Your task to perform on an android device: Clear the shopping cart on newegg. Image 0: 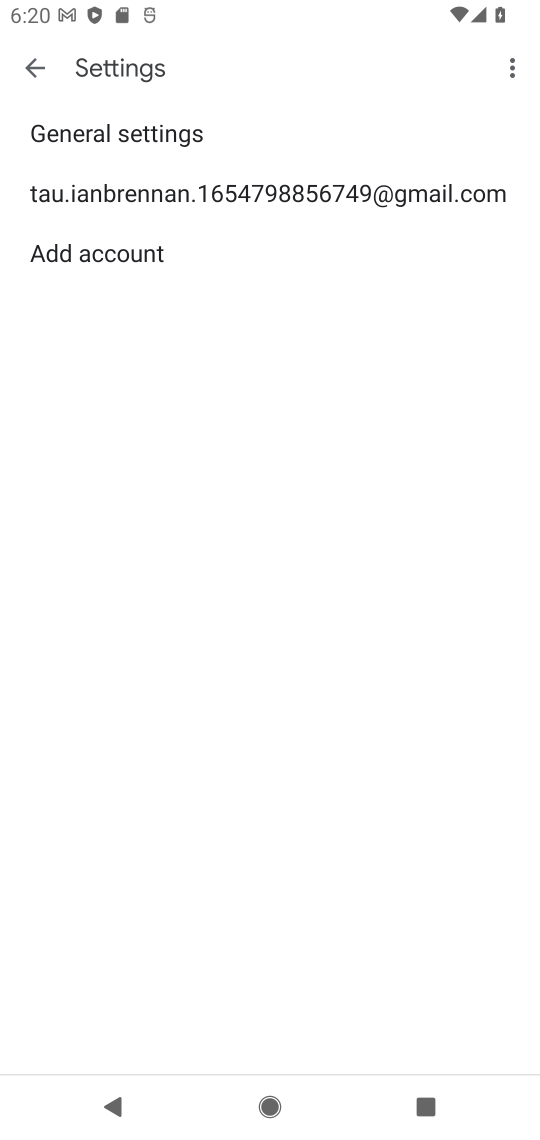
Step 0: press home button
Your task to perform on an android device: Clear the shopping cart on newegg. Image 1: 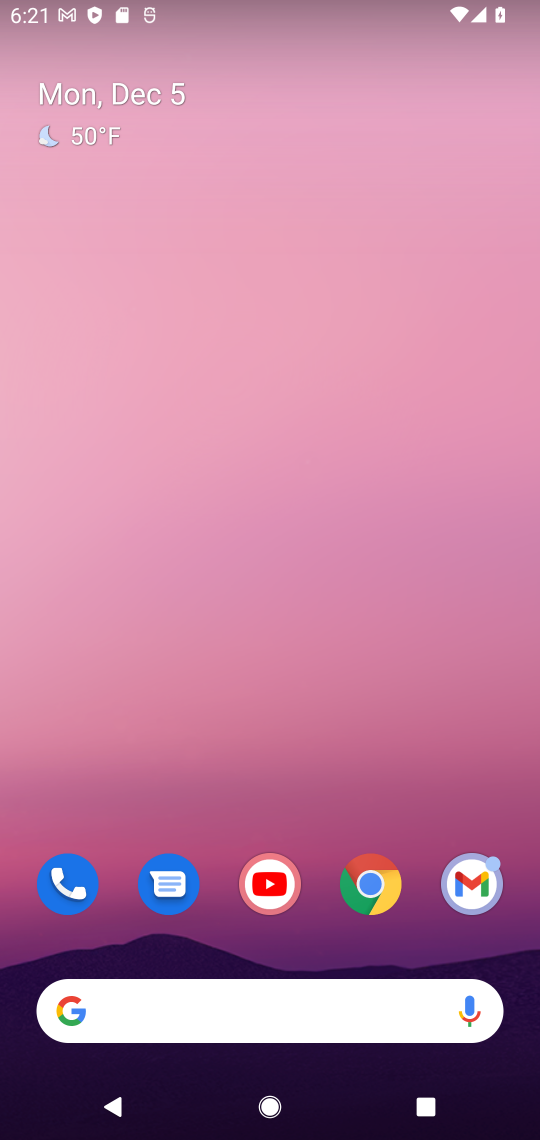
Step 1: click (380, 887)
Your task to perform on an android device: Clear the shopping cart on newegg. Image 2: 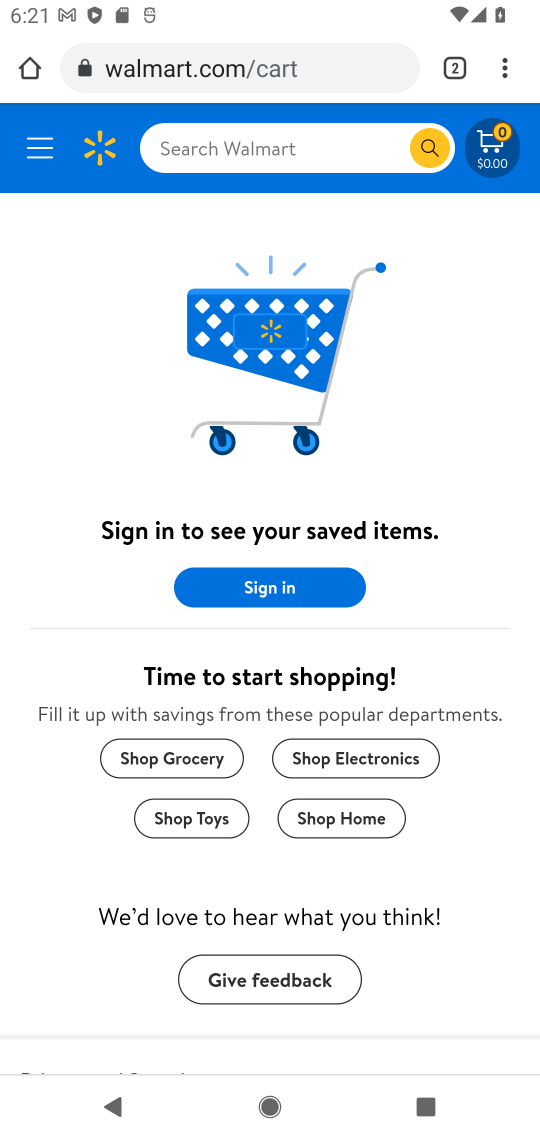
Step 2: click (449, 64)
Your task to perform on an android device: Clear the shopping cart on newegg. Image 3: 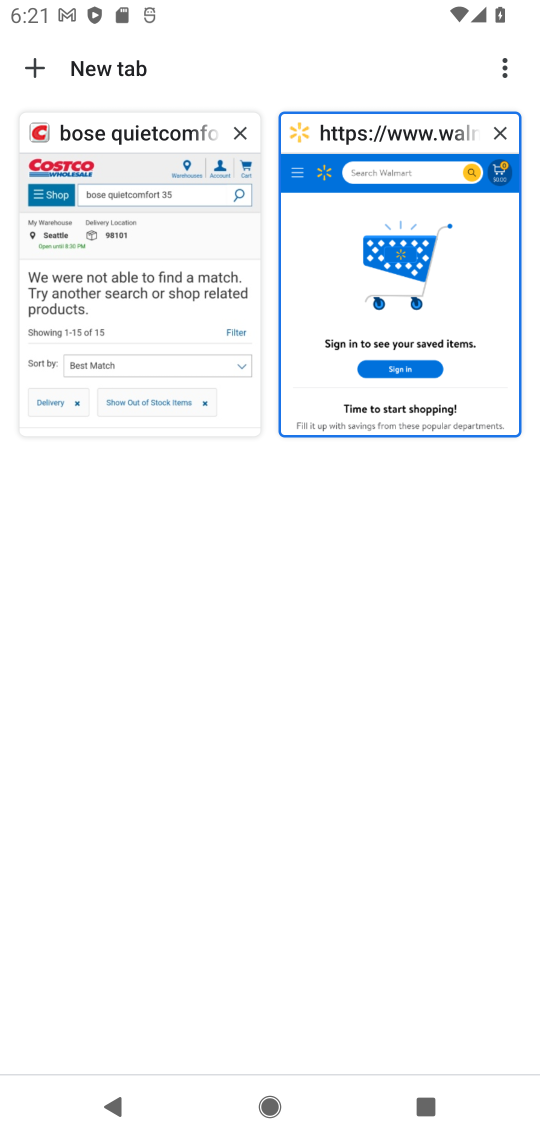
Step 3: click (36, 77)
Your task to perform on an android device: Clear the shopping cart on newegg. Image 4: 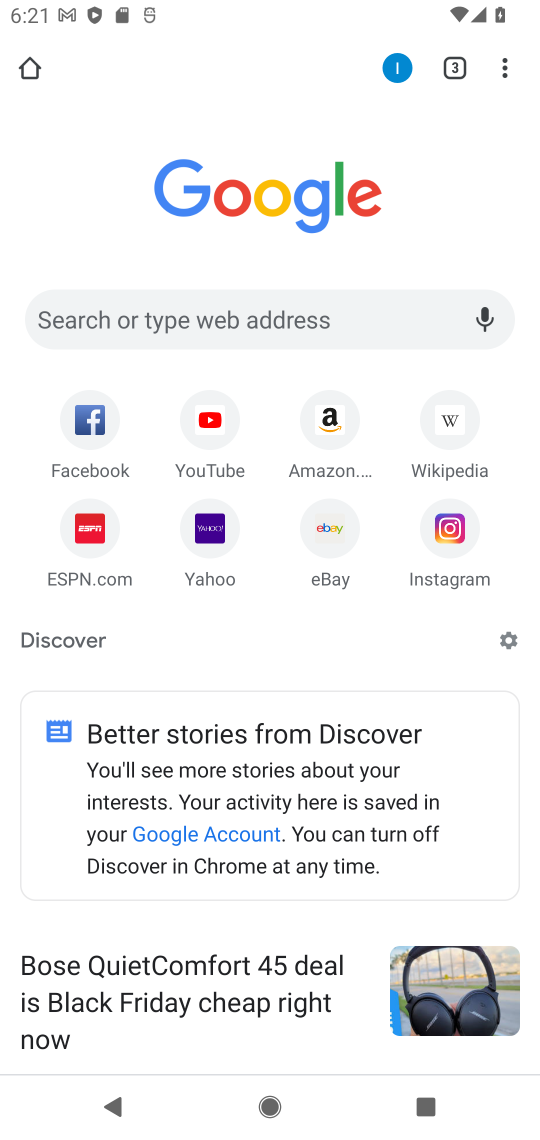
Step 4: click (164, 305)
Your task to perform on an android device: Clear the shopping cart on newegg. Image 5: 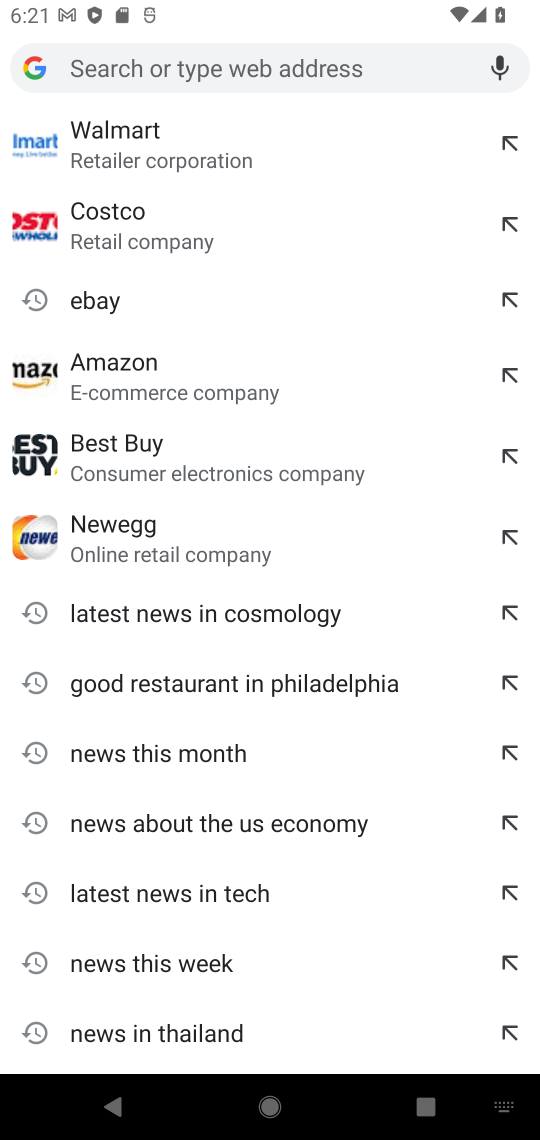
Step 5: type "newegg"
Your task to perform on an android device: Clear the shopping cart on newegg. Image 6: 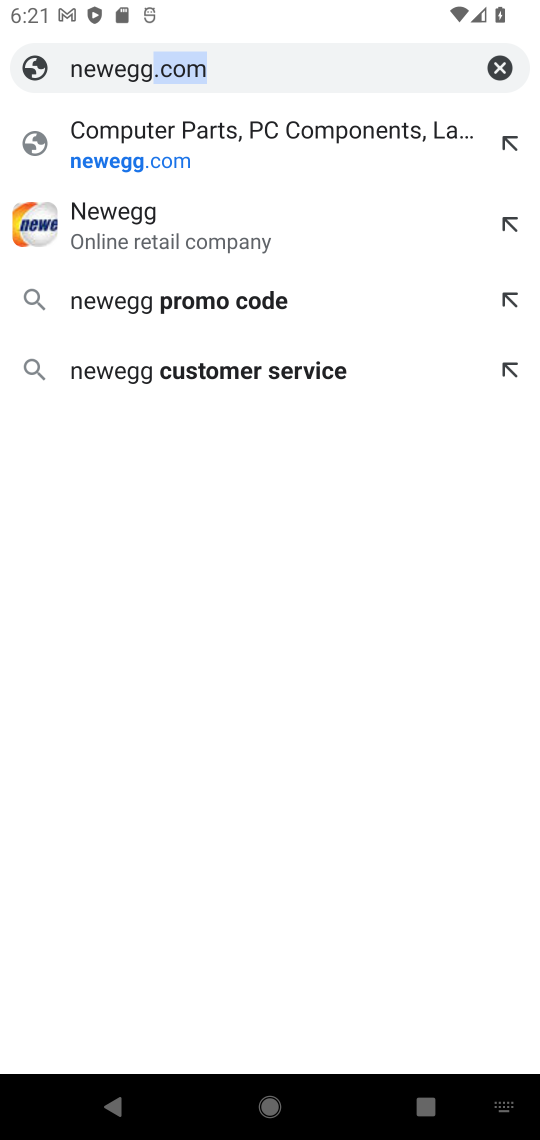
Step 6: click (151, 222)
Your task to perform on an android device: Clear the shopping cart on newegg. Image 7: 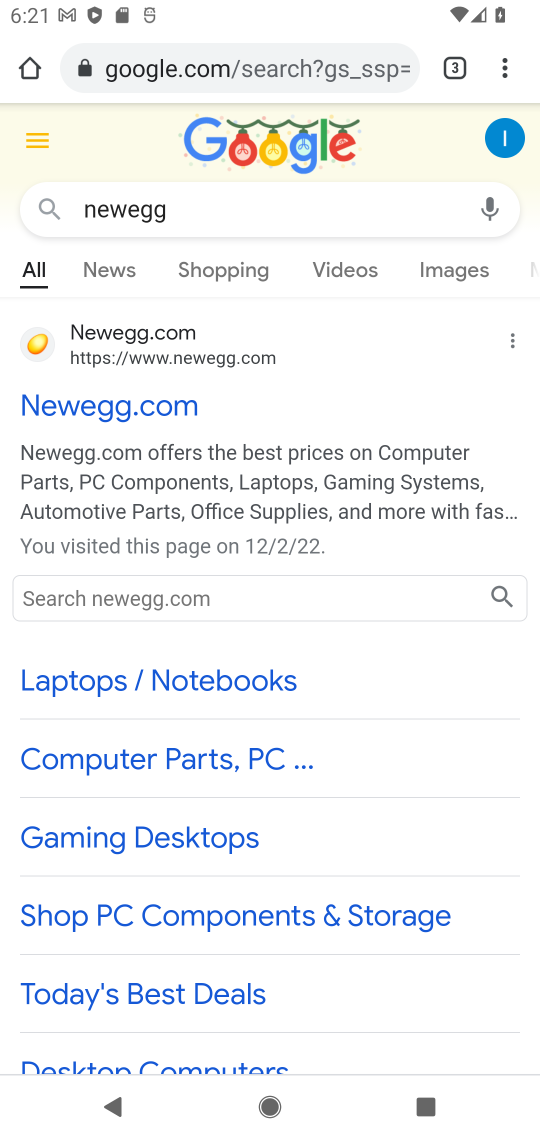
Step 7: click (126, 408)
Your task to perform on an android device: Clear the shopping cart on newegg. Image 8: 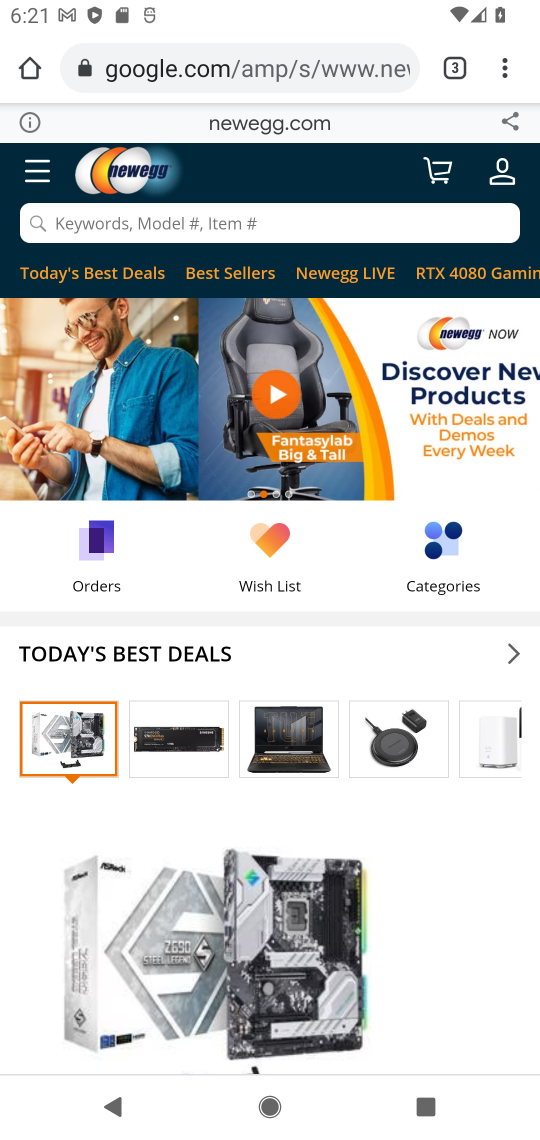
Step 8: click (438, 161)
Your task to perform on an android device: Clear the shopping cart on newegg. Image 9: 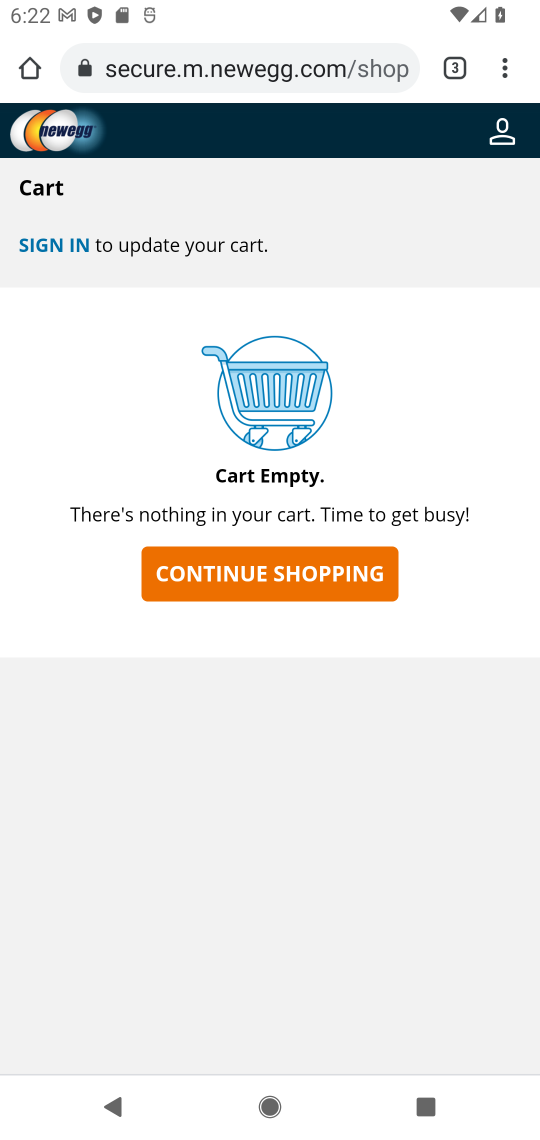
Step 9: task complete